Your task to perform on an android device: Check the news Image 0: 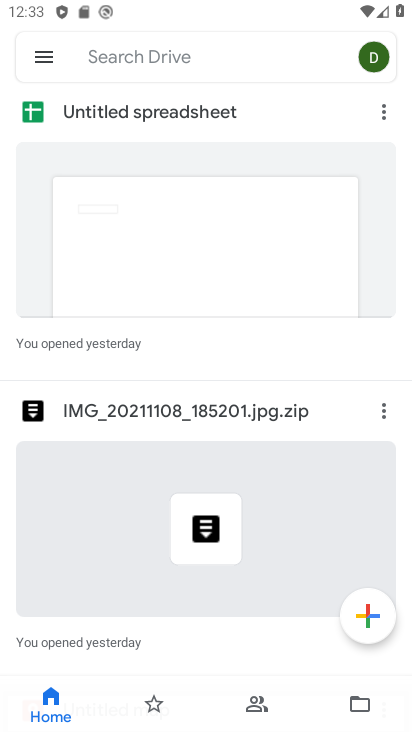
Step 0: press home button
Your task to perform on an android device: Check the news Image 1: 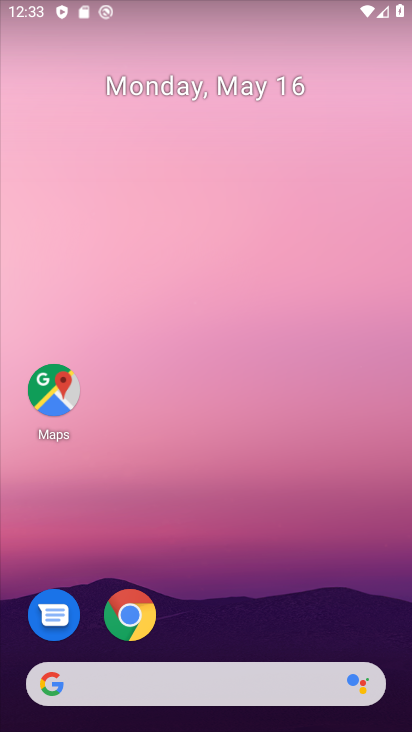
Step 1: click (142, 615)
Your task to perform on an android device: Check the news Image 2: 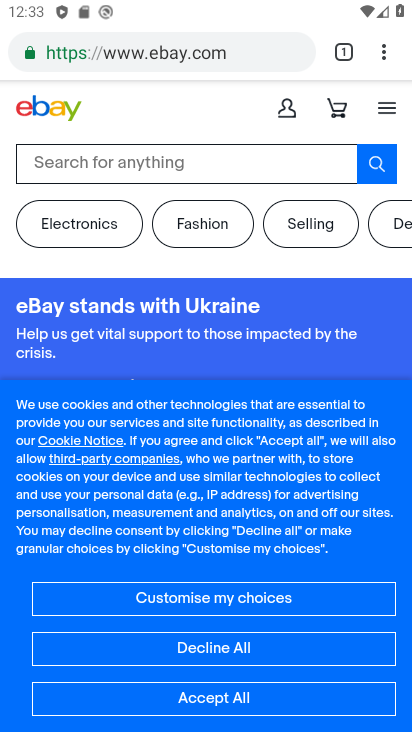
Step 2: click (205, 48)
Your task to perform on an android device: Check the news Image 3: 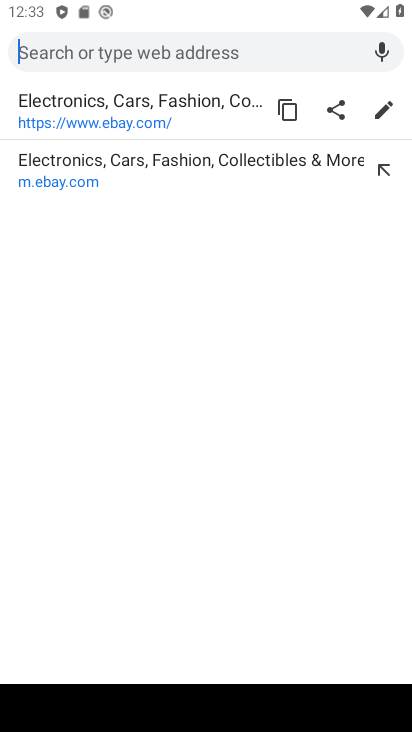
Step 3: type "news"
Your task to perform on an android device: Check the news Image 4: 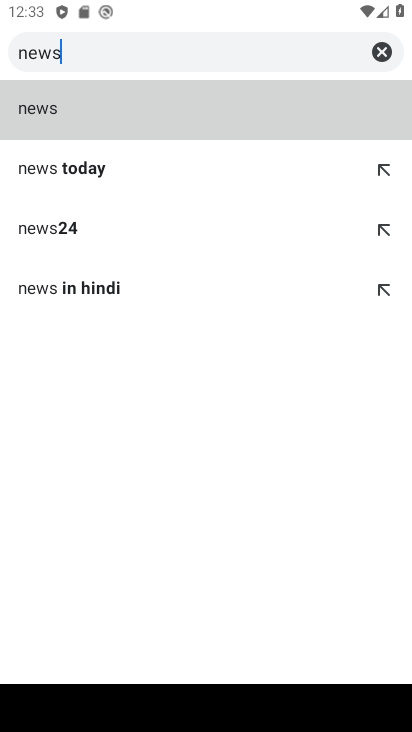
Step 4: click (44, 118)
Your task to perform on an android device: Check the news Image 5: 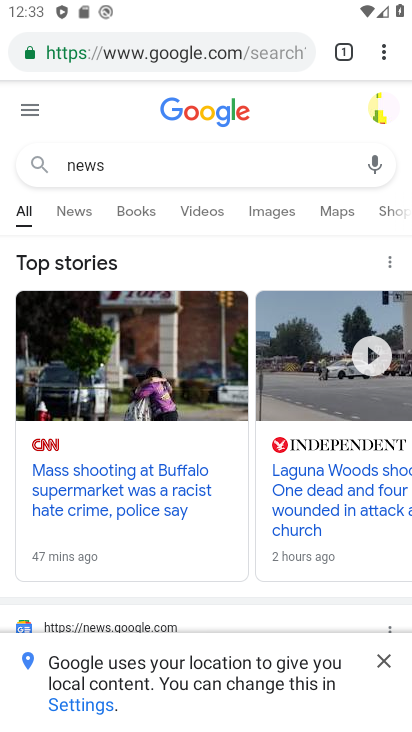
Step 5: click (83, 219)
Your task to perform on an android device: Check the news Image 6: 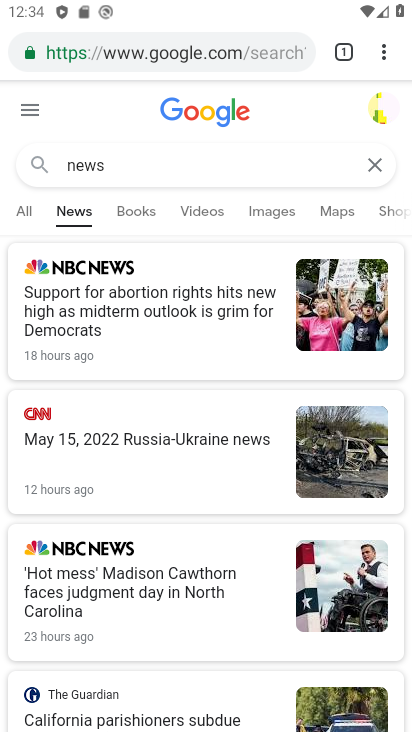
Step 6: task complete